Your task to perform on an android device: Open Yahoo.com Image 0: 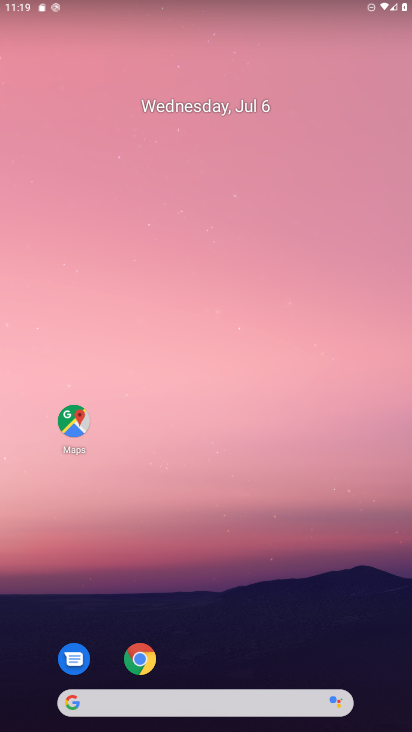
Step 0: click (138, 669)
Your task to perform on an android device: Open Yahoo.com Image 1: 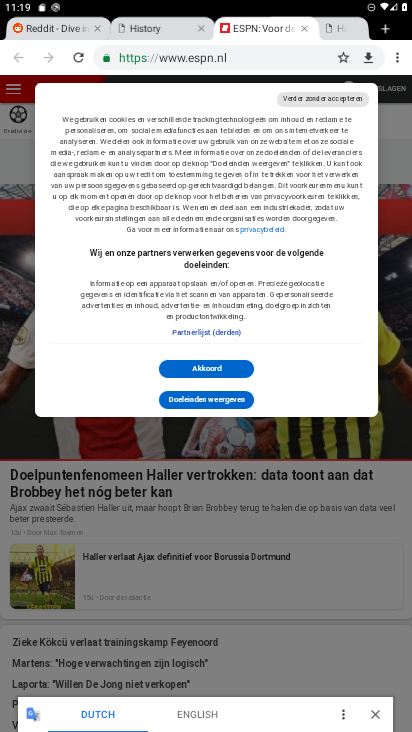
Step 1: click (384, 28)
Your task to perform on an android device: Open Yahoo.com Image 2: 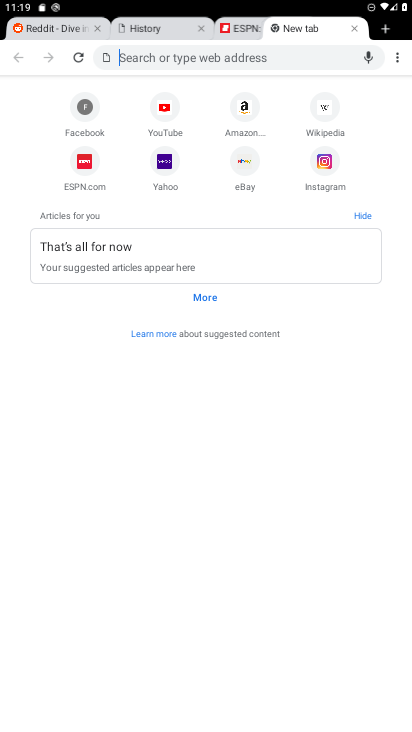
Step 2: click (170, 165)
Your task to perform on an android device: Open Yahoo.com Image 3: 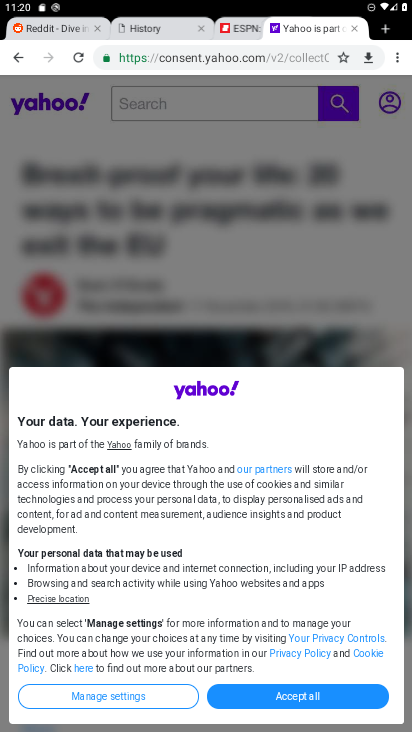
Step 3: task complete